Your task to perform on an android device: Go to network settings Image 0: 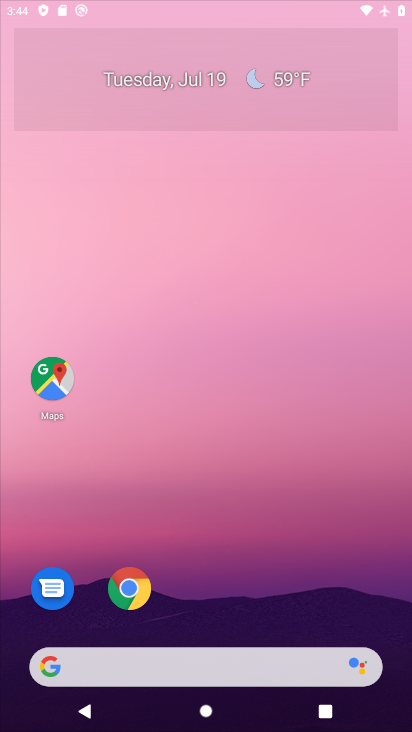
Step 0: press home button
Your task to perform on an android device: Go to network settings Image 1: 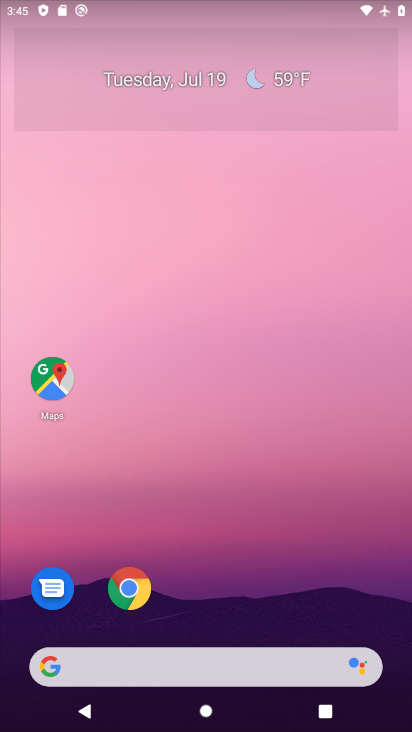
Step 1: drag from (242, 550) to (289, 21)
Your task to perform on an android device: Go to network settings Image 2: 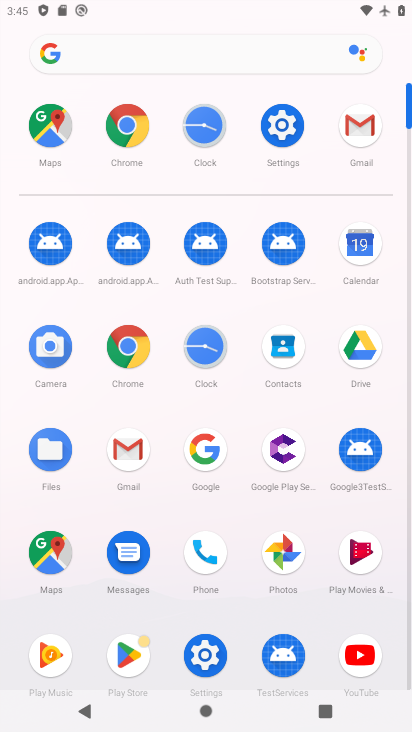
Step 2: click (278, 132)
Your task to perform on an android device: Go to network settings Image 3: 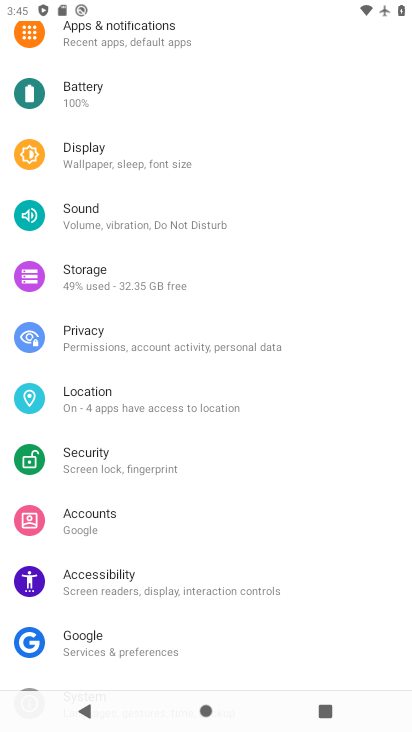
Step 3: drag from (192, 117) to (202, 579)
Your task to perform on an android device: Go to network settings Image 4: 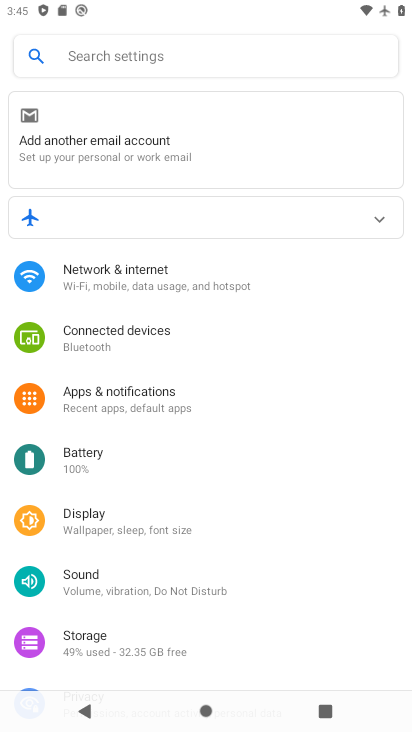
Step 4: click (103, 278)
Your task to perform on an android device: Go to network settings Image 5: 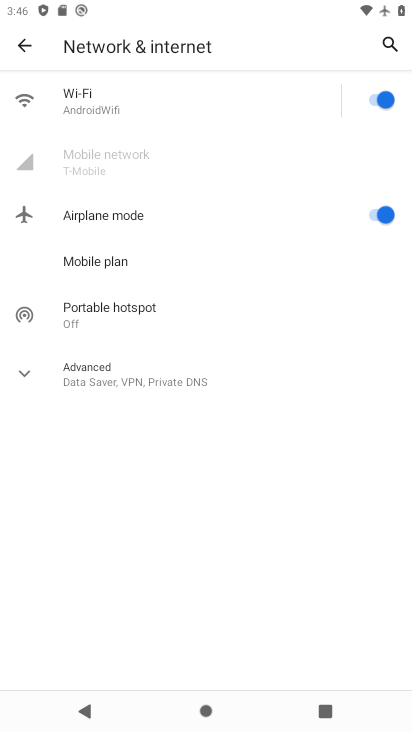
Step 5: task complete